Your task to perform on an android device: Show me productivity apps on the Play Store Image 0: 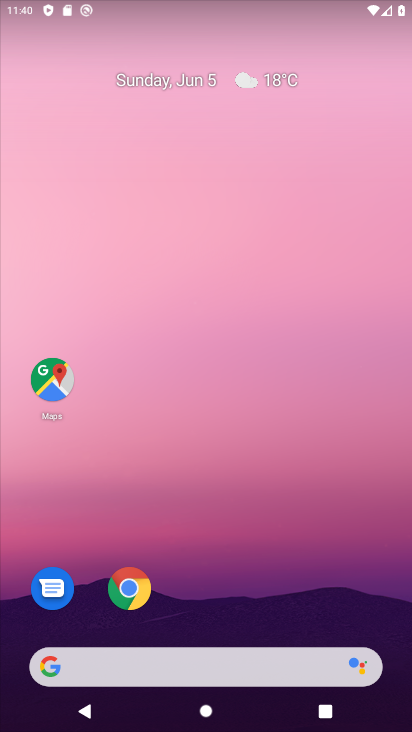
Step 0: click (280, 24)
Your task to perform on an android device: Show me productivity apps on the Play Store Image 1: 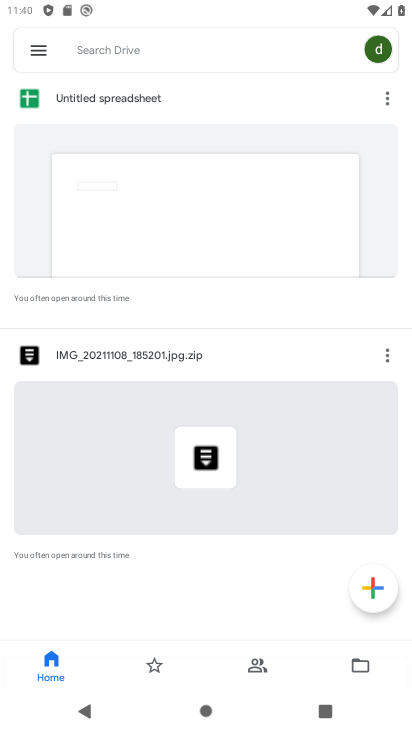
Step 1: press back button
Your task to perform on an android device: Show me productivity apps on the Play Store Image 2: 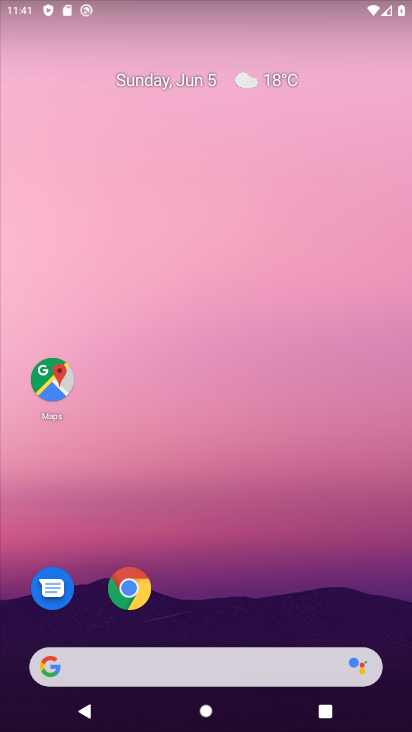
Step 2: drag from (275, 593) to (348, 29)
Your task to perform on an android device: Show me productivity apps on the Play Store Image 3: 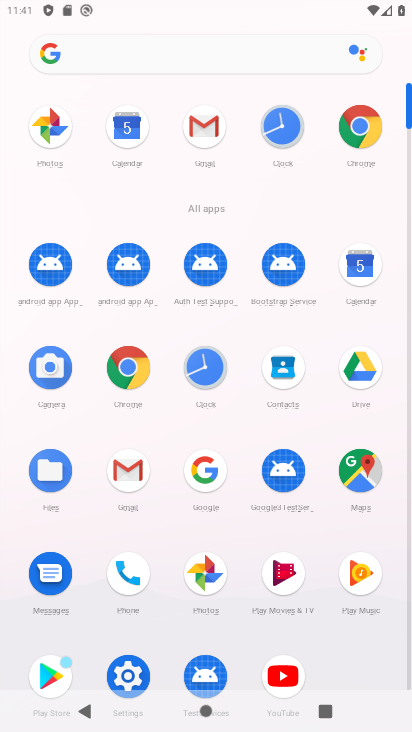
Step 3: click (49, 664)
Your task to perform on an android device: Show me productivity apps on the Play Store Image 4: 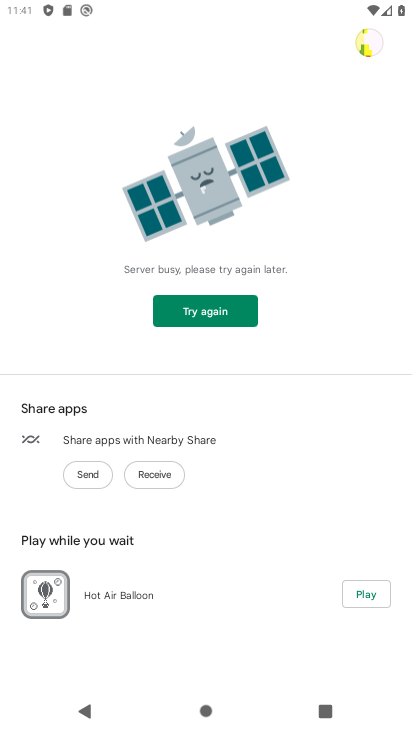
Step 4: click (221, 295)
Your task to perform on an android device: Show me productivity apps on the Play Store Image 5: 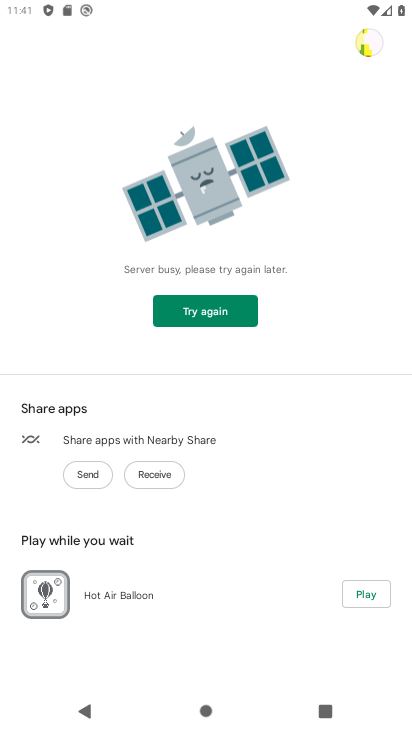
Step 5: click (223, 313)
Your task to perform on an android device: Show me productivity apps on the Play Store Image 6: 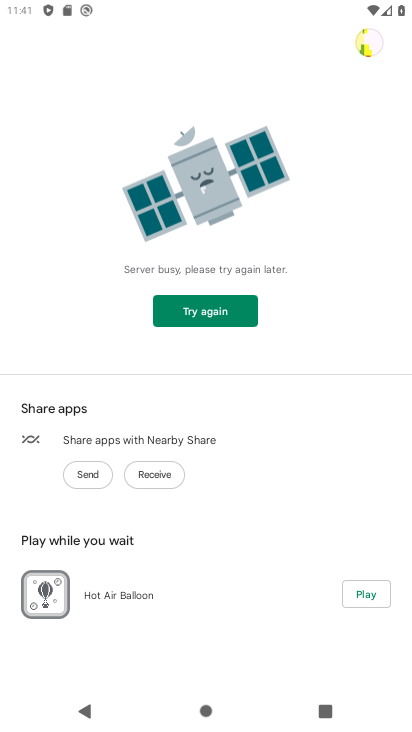
Step 6: press back button
Your task to perform on an android device: Show me productivity apps on the Play Store Image 7: 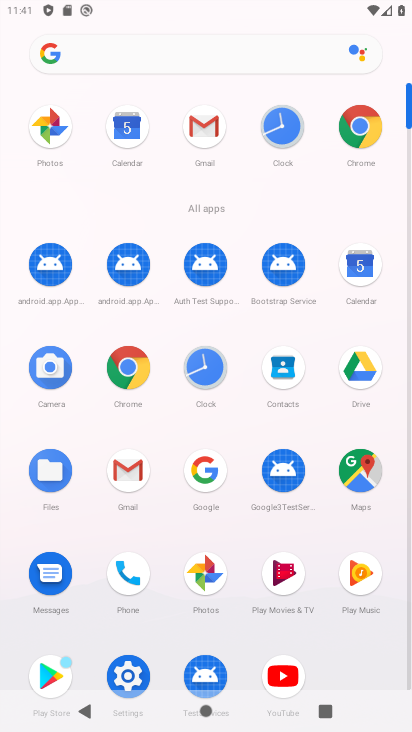
Step 7: click (53, 658)
Your task to perform on an android device: Show me productivity apps on the Play Store Image 8: 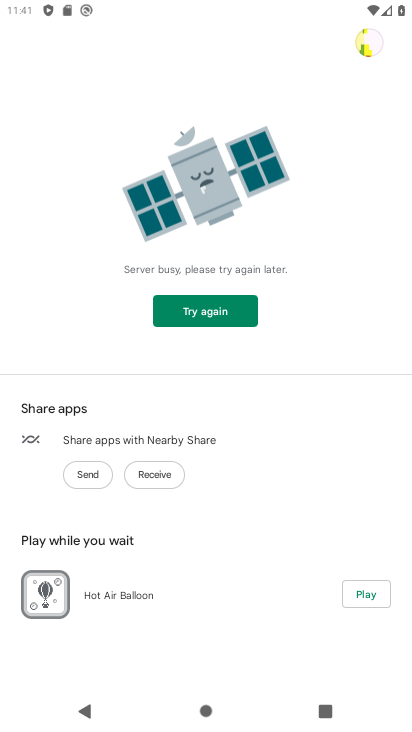
Step 8: task complete